Your task to perform on an android device: open sync settings in chrome Image 0: 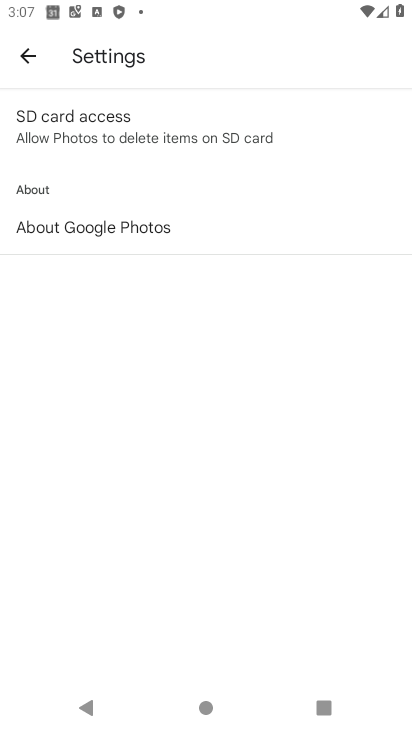
Step 0: press home button
Your task to perform on an android device: open sync settings in chrome Image 1: 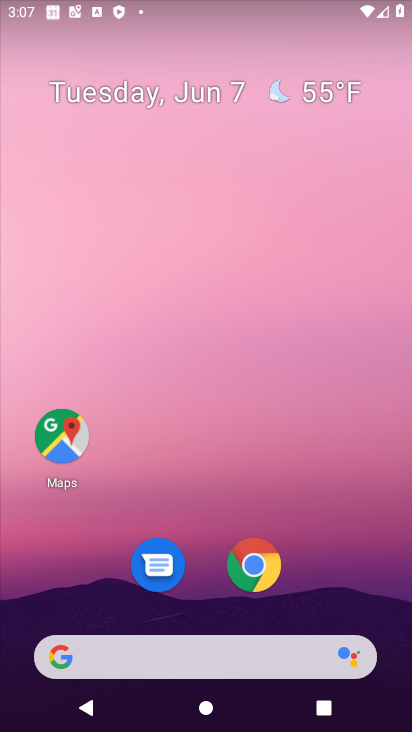
Step 1: drag from (247, 657) to (267, 20)
Your task to perform on an android device: open sync settings in chrome Image 2: 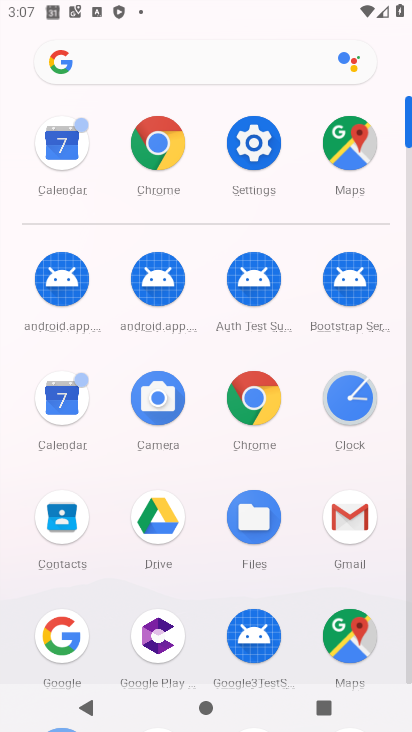
Step 2: click (249, 420)
Your task to perform on an android device: open sync settings in chrome Image 3: 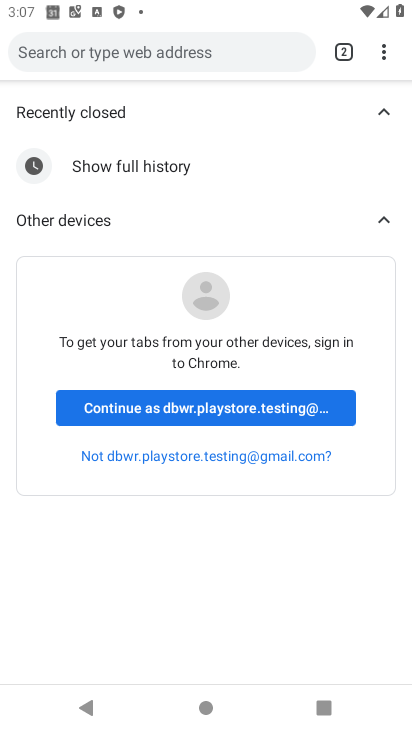
Step 3: click (375, 42)
Your task to perform on an android device: open sync settings in chrome Image 4: 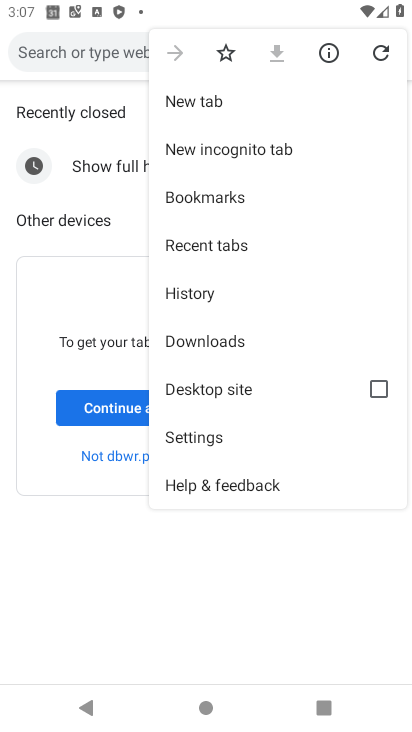
Step 4: click (226, 435)
Your task to perform on an android device: open sync settings in chrome Image 5: 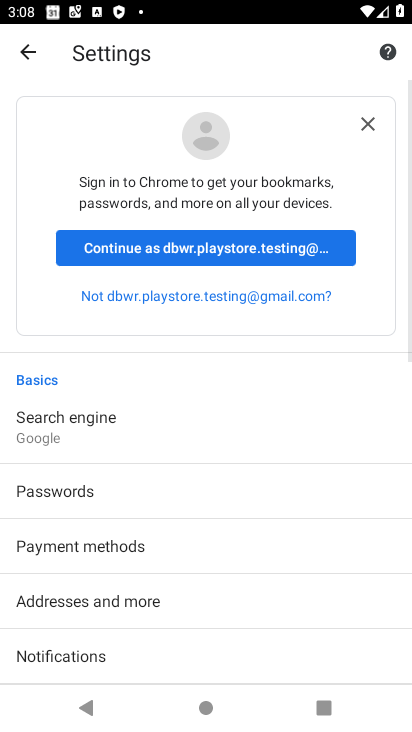
Step 5: drag from (181, 602) to (188, 183)
Your task to perform on an android device: open sync settings in chrome Image 6: 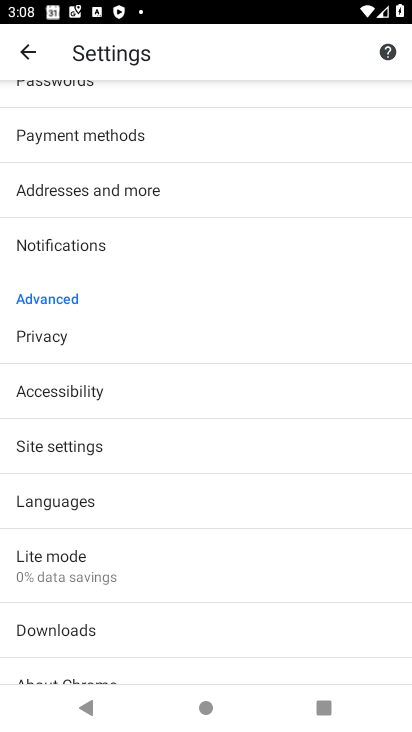
Step 6: click (84, 452)
Your task to perform on an android device: open sync settings in chrome Image 7: 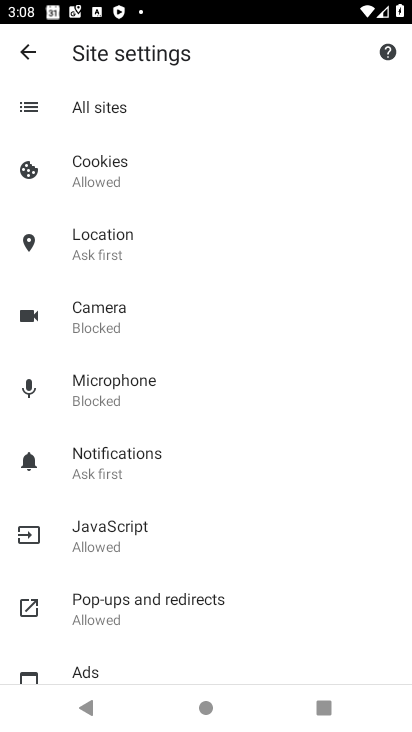
Step 7: drag from (176, 620) to (187, 447)
Your task to perform on an android device: open sync settings in chrome Image 8: 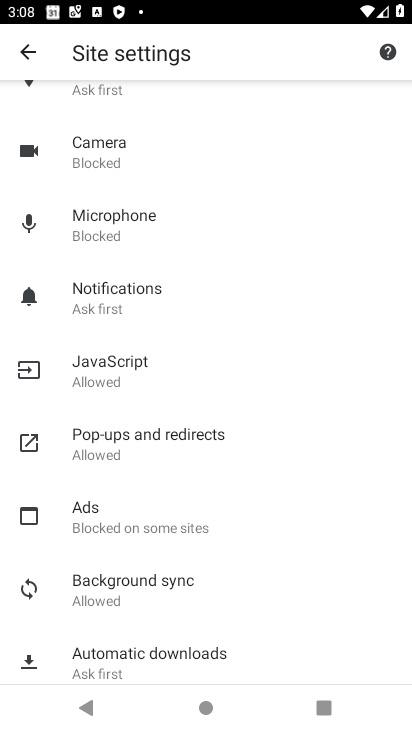
Step 8: click (164, 602)
Your task to perform on an android device: open sync settings in chrome Image 9: 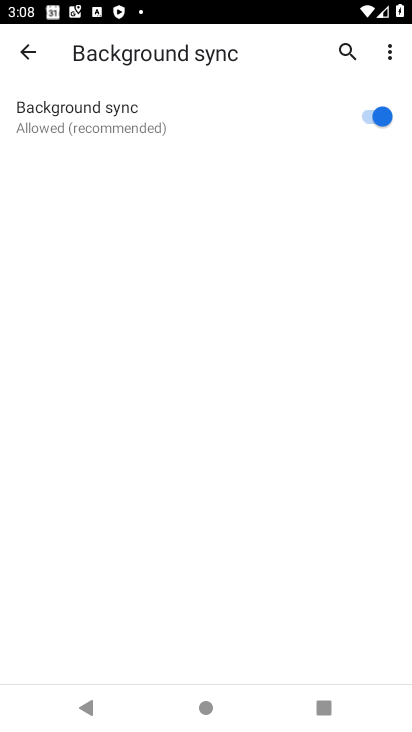
Step 9: task complete